Your task to perform on an android device: snooze an email in the gmail app Image 0: 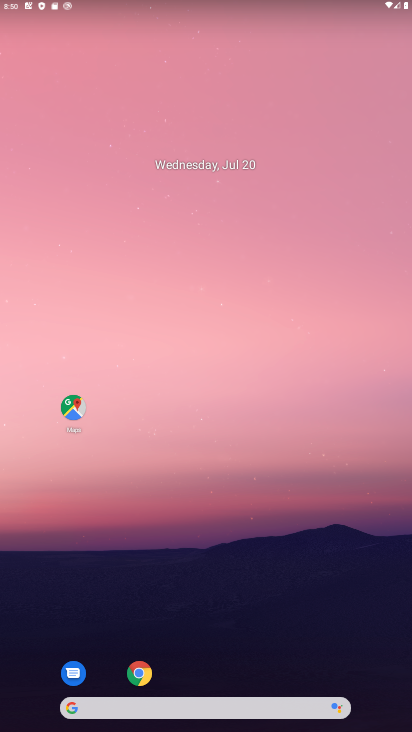
Step 0: drag from (200, 193) to (207, 139)
Your task to perform on an android device: snooze an email in the gmail app Image 1: 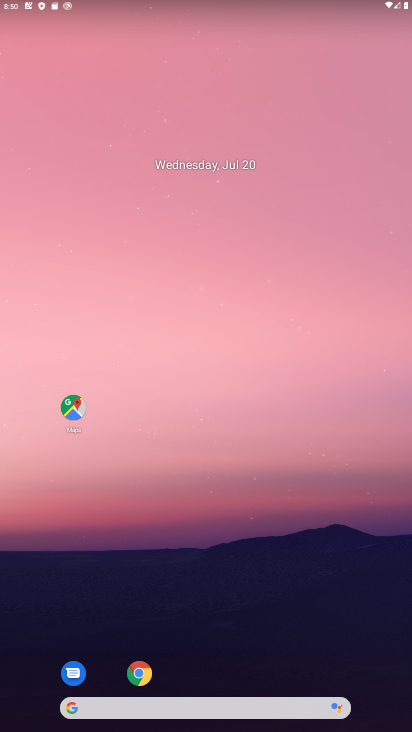
Step 1: press home button
Your task to perform on an android device: snooze an email in the gmail app Image 2: 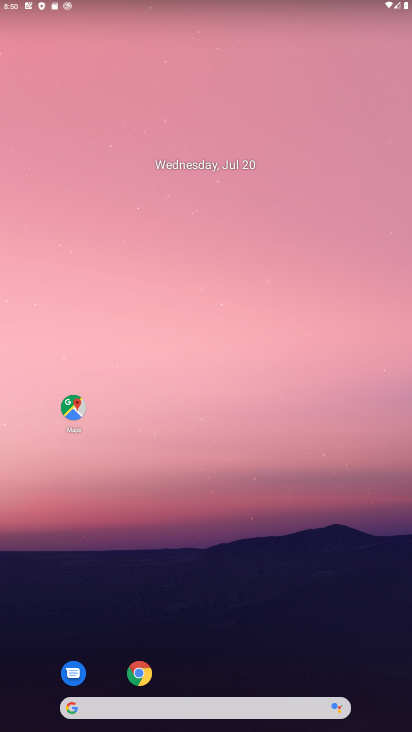
Step 2: drag from (146, 639) to (138, 53)
Your task to perform on an android device: snooze an email in the gmail app Image 3: 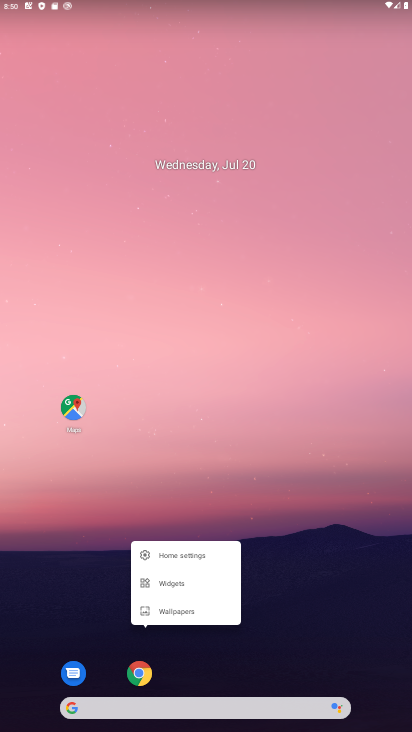
Step 3: drag from (229, 159) to (243, 98)
Your task to perform on an android device: snooze an email in the gmail app Image 4: 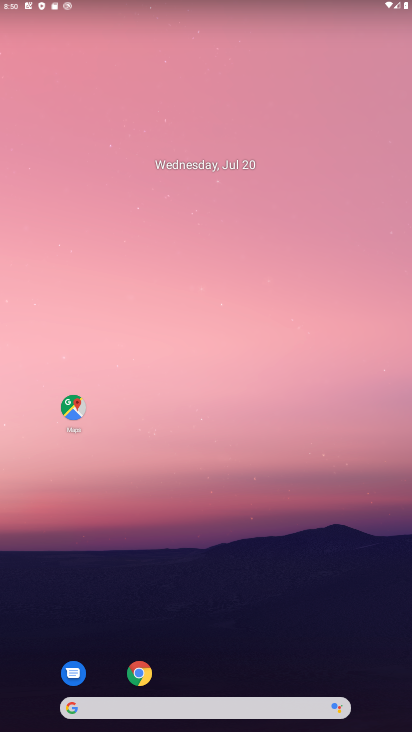
Step 4: click (191, 603)
Your task to perform on an android device: snooze an email in the gmail app Image 5: 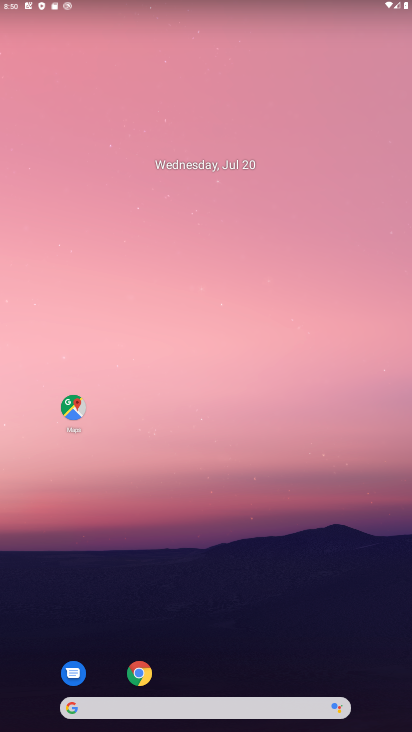
Step 5: press home button
Your task to perform on an android device: snooze an email in the gmail app Image 6: 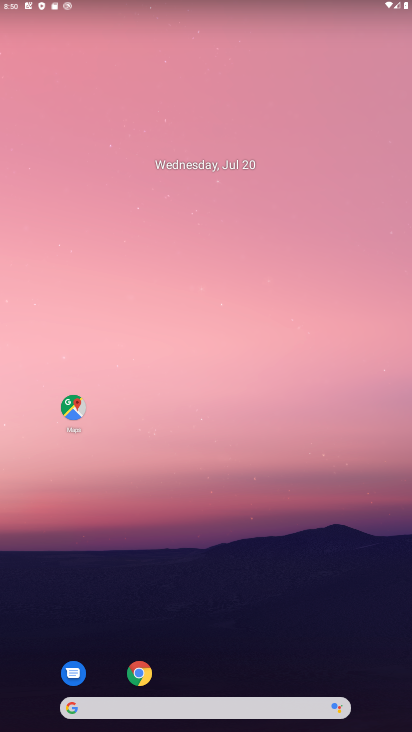
Step 6: drag from (200, 670) to (287, 5)
Your task to perform on an android device: snooze an email in the gmail app Image 7: 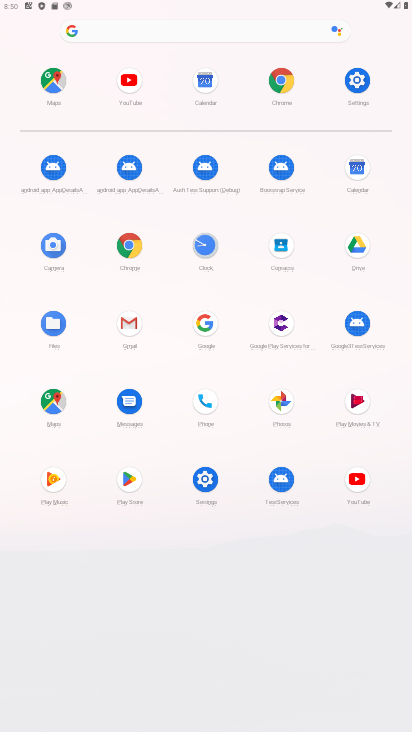
Step 7: click (129, 325)
Your task to perform on an android device: snooze an email in the gmail app Image 8: 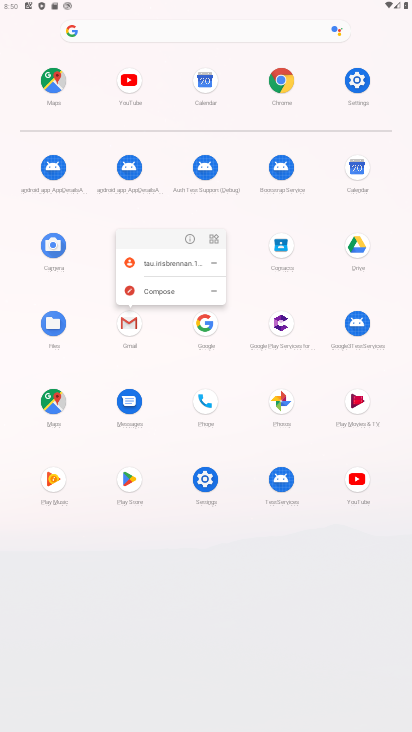
Step 8: click (184, 233)
Your task to perform on an android device: snooze an email in the gmail app Image 9: 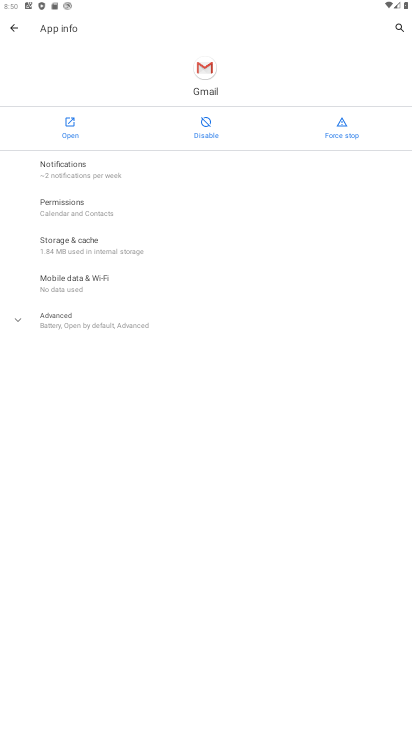
Step 9: drag from (228, 491) to (222, 240)
Your task to perform on an android device: snooze an email in the gmail app Image 10: 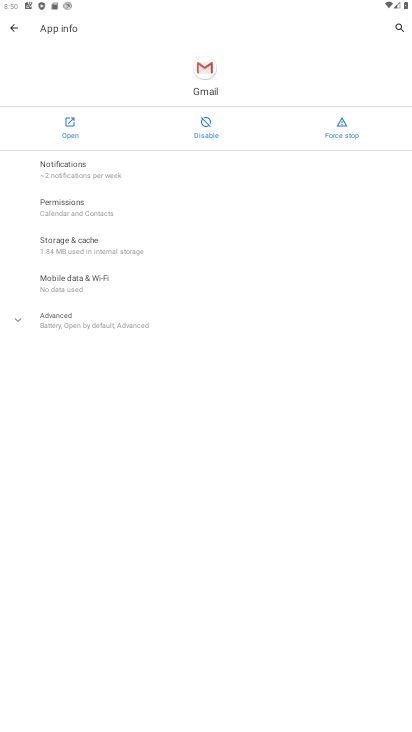
Step 10: click (41, 121)
Your task to perform on an android device: snooze an email in the gmail app Image 11: 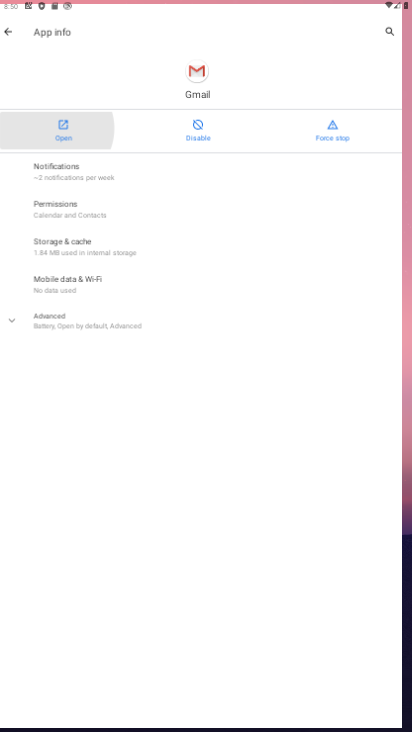
Step 11: click (55, 124)
Your task to perform on an android device: snooze an email in the gmail app Image 12: 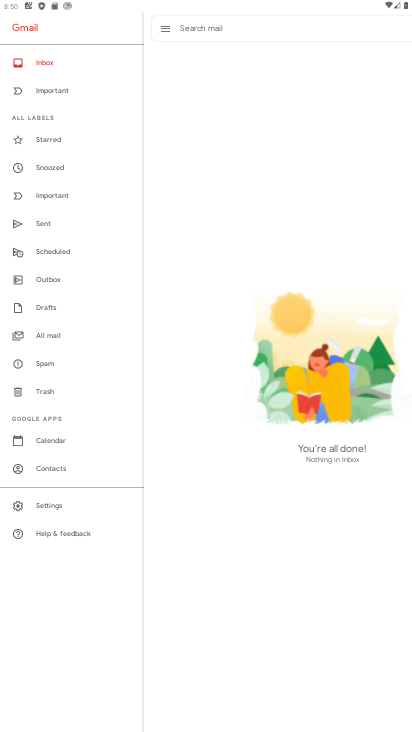
Step 12: drag from (206, 537) to (123, 265)
Your task to perform on an android device: snooze an email in the gmail app Image 13: 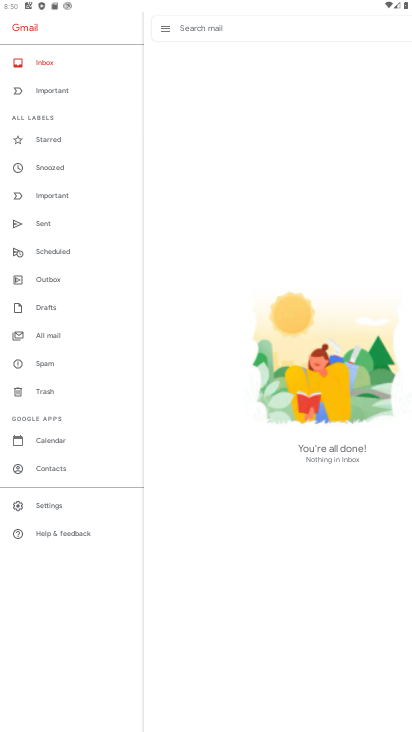
Step 13: click (277, 200)
Your task to perform on an android device: snooze an email in the gmail app Image 14: 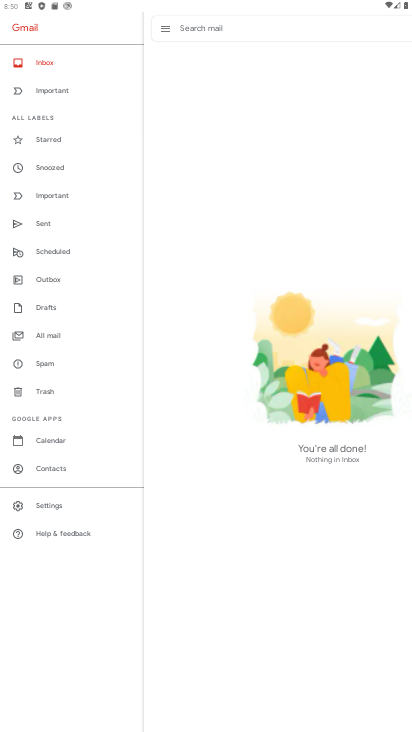
Step 14: task complete